Your task to perform on an android device: Go to privacy settings Image 0: 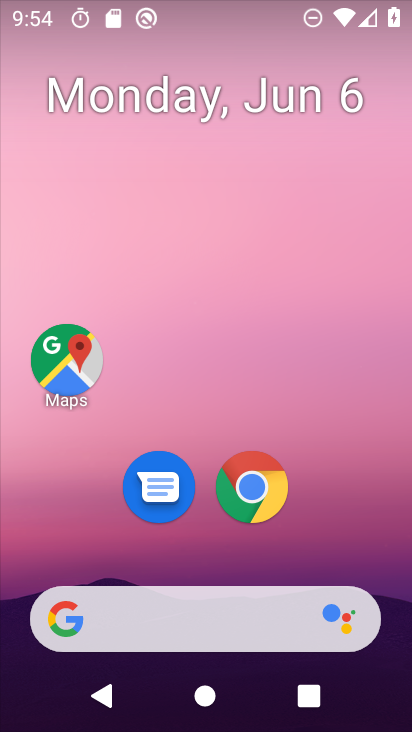
Step 0: drag from (396, 623) to (384, 524)
Your task to perform on an android device: Go to privacy settings Image 1: 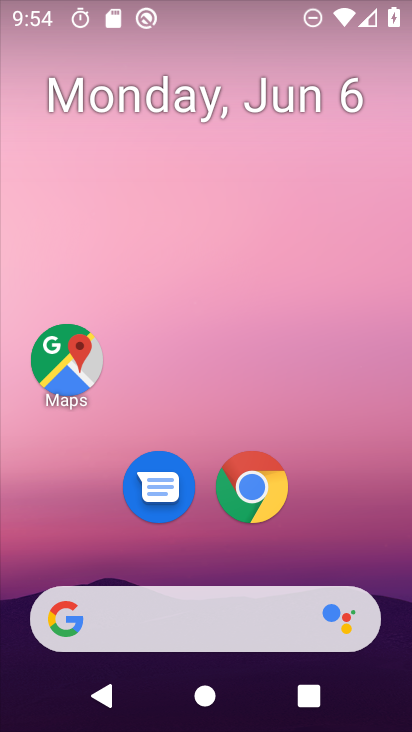
Step 1: drag from (348, 266) to (301, 56)
Your task to perform on an android device: Go to privacy settings Image 2: 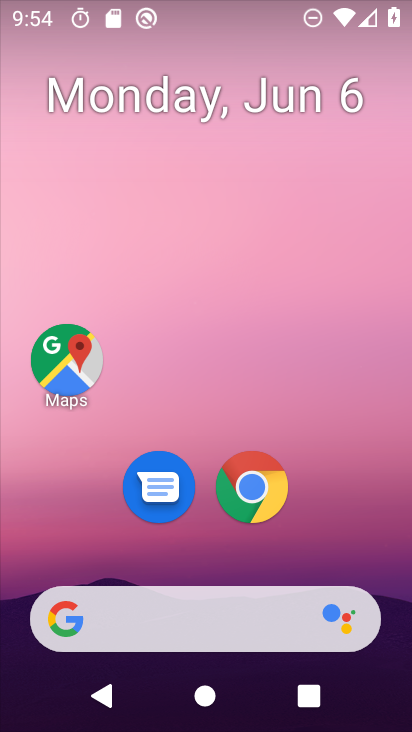
Step 2: drag from (394, 413) to (324, 25)
Your task to perform on an android device: Go to privacy settings Image 3: 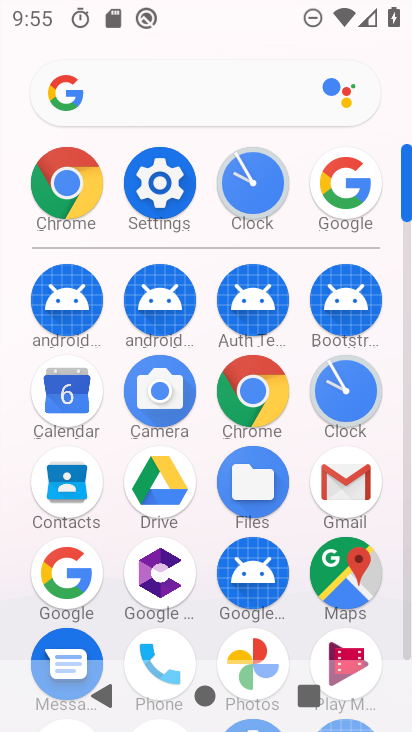
Step 3: click (77, 188)
Your task to perform on an android device: Go to privacy settings Image 4: 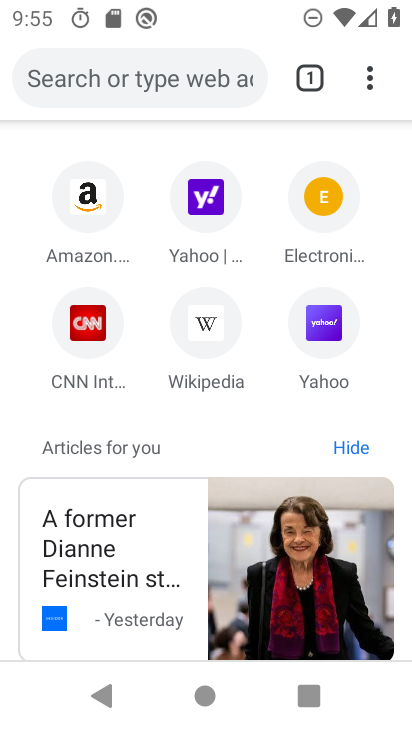
Step 4: press home button
Your task to perform on an android device: Go to privacy settings Image 5: 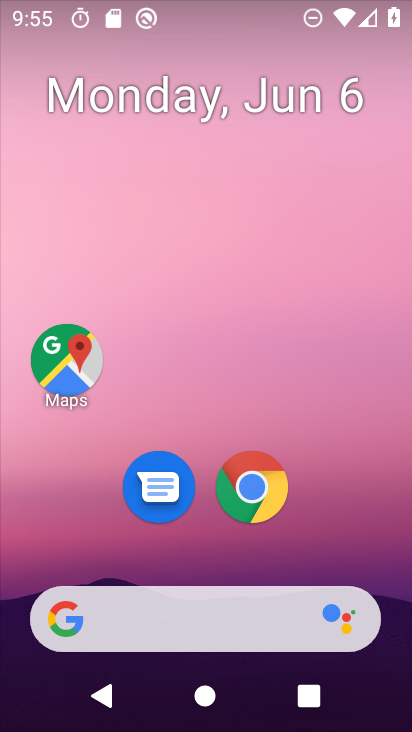
Step 5: click (401, 625)
Your task to perform on an android device: Go to privacy settings Image 6: 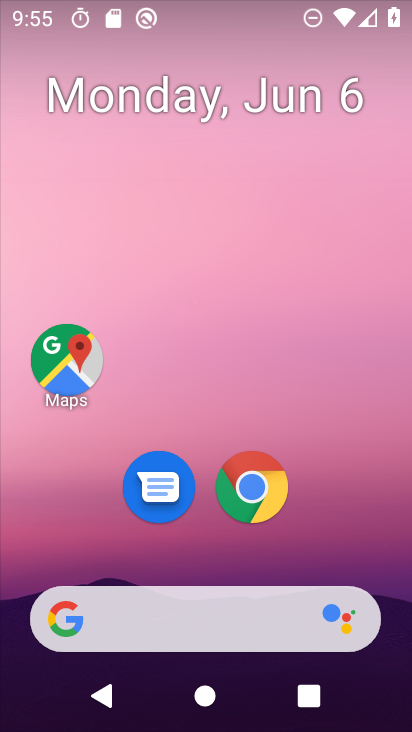
Step 6: drag from (401, 607) to (387, 375)
Your task to perform on an android device: Go to privacy settings Image 7: 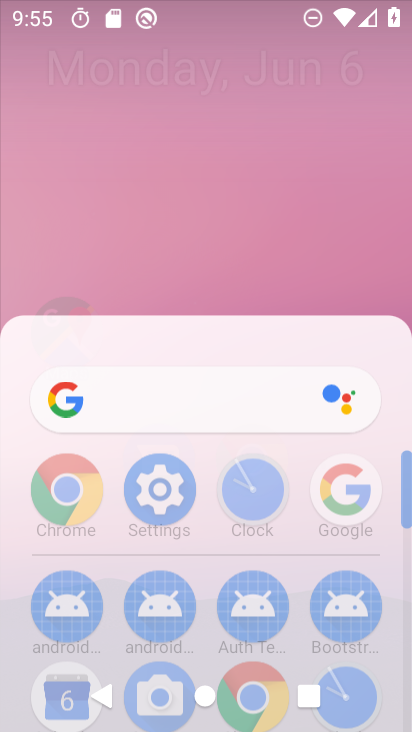
Step 7: click (336, 13)
Your task to perform on an android device: Go to privacy settings Image 8: 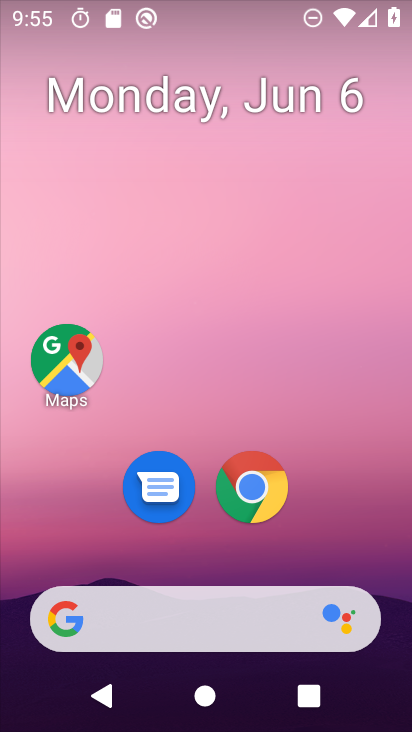
Step 8: drag from (403, 630) to (309, 41)
Your task to perform on an android device: Go to privacy settings Image 9: 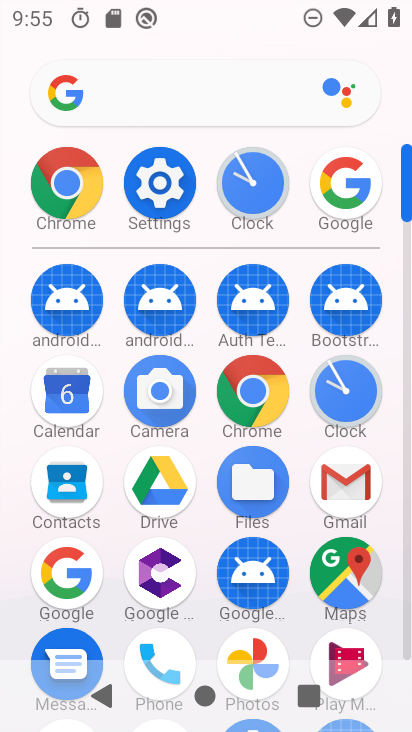
Step 9: click (181, 206)
Your task to perform on an android device: Go to privacy settings Image 10: 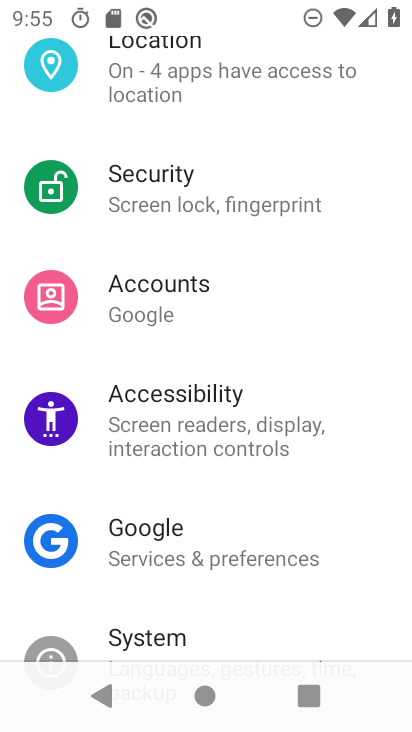
Step 10: drag from (229, 224) to (219, 102)
Your task to perform on an android device: Go to privacy settings Image 11: 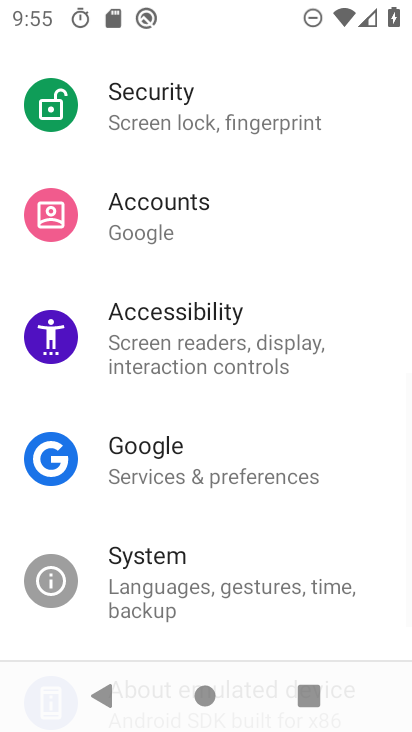
Step 11: drag from (219, 102) to (233, 645)
Your task to perform on an android device: Go to privacy settings Image 12: 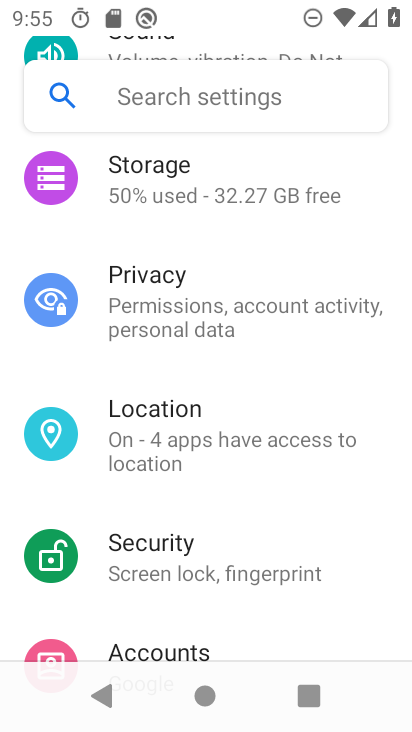
Step 12: click (170, 314)
Your task to perform on an android device: Go to privacy settings Image 13: 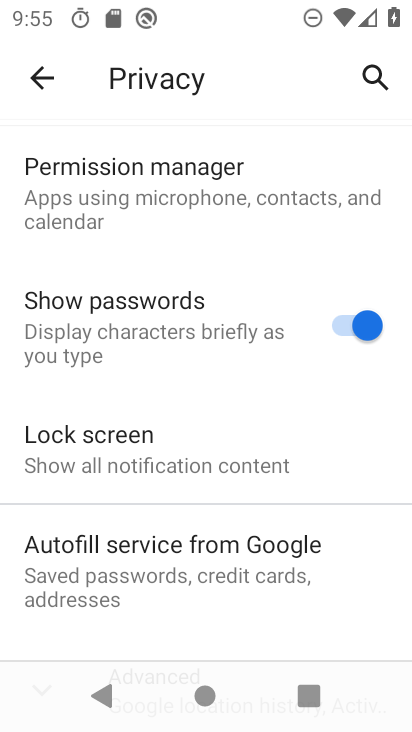
Step 13: task complete